Your task to perform on an android device: Search for sushi restaurants on Maps Image 0: 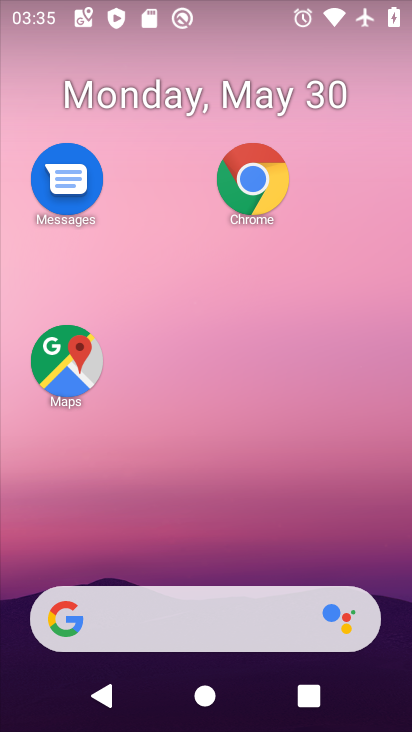
Step 0: click (62, 350)
Your task to perform on an android device: Search for sushi restaurants on Maps Image 1: 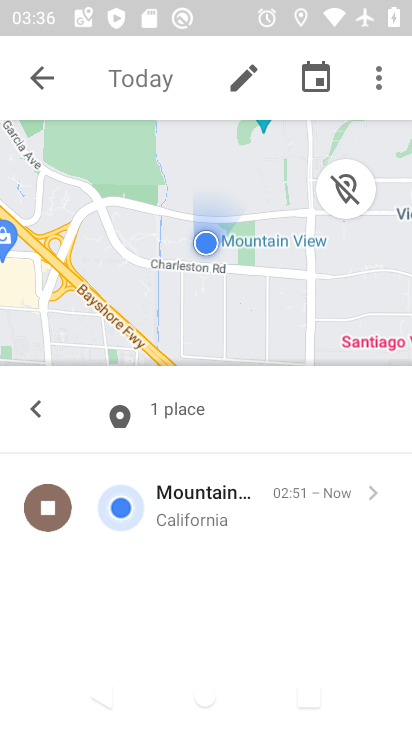
Step 1: click (41, 89)
Your task to perform on an android device: Search for sushi restaurants on Maps Image 2: 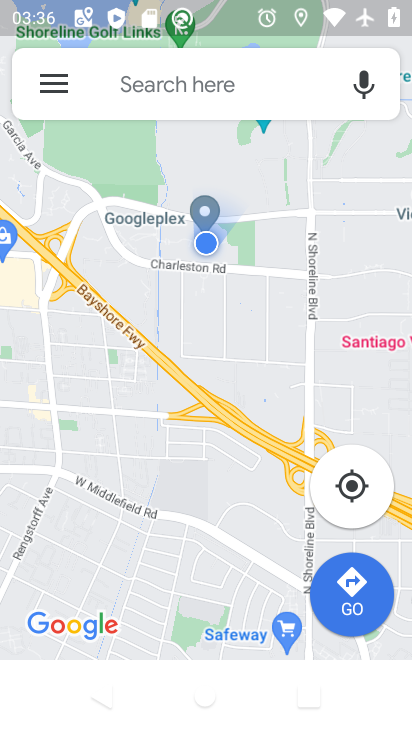
Step 2: click (194, 97)
Your task to perform on an android device: Search for sushi restaurants on Maps Image 3: 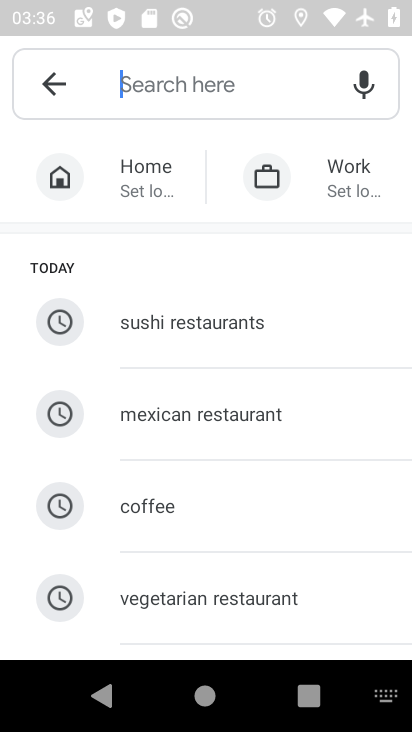
Step 3: click (135, 327)
Your task to perform on an android device: Search for sushi restaurants on Maps Image 4: 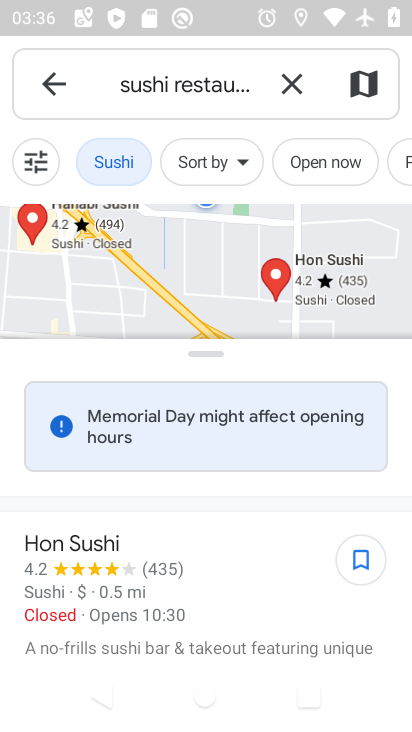
Step 4: task complete